Your task to perform on an android device: search for starred emails in the gmail app Image 0: 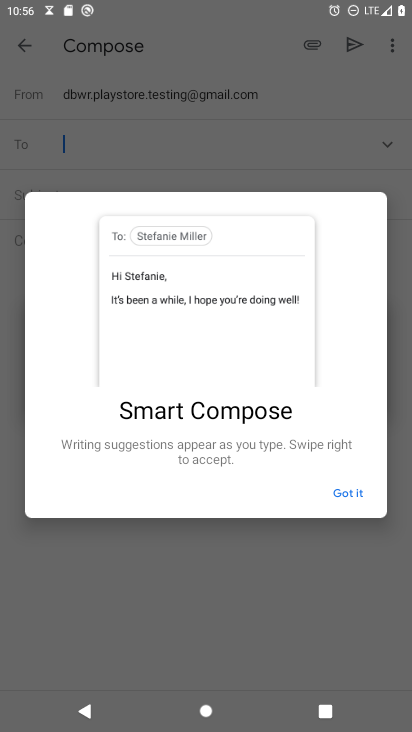
Step 0: press home button
Your task to perform on an android device: search for starred emails in the gmail app Image 1: 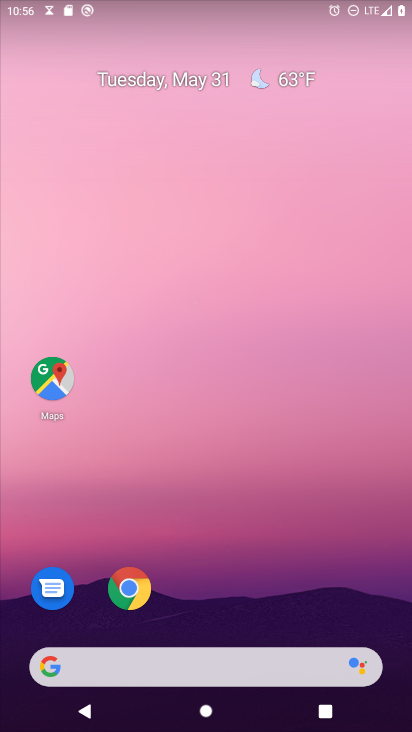
Step 1: drag from (282, 585) to (191, 176)
Your task to perform on an android device: search for starred emails in the gmail app Image 2: 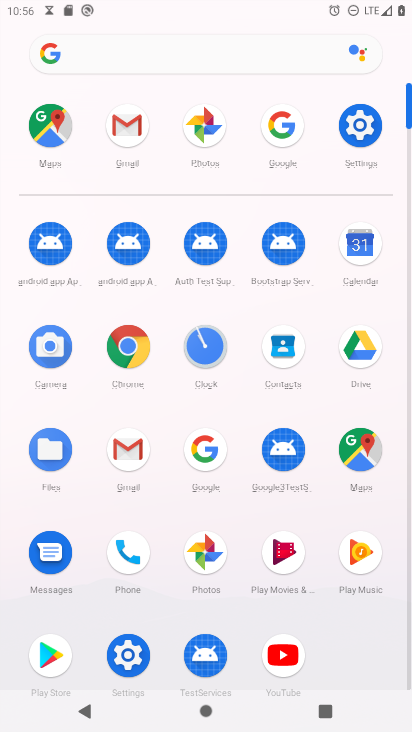
Step 2: click (125, 123)
Your task to perform on an android device: search for starred emails in the gmail app Image 3: 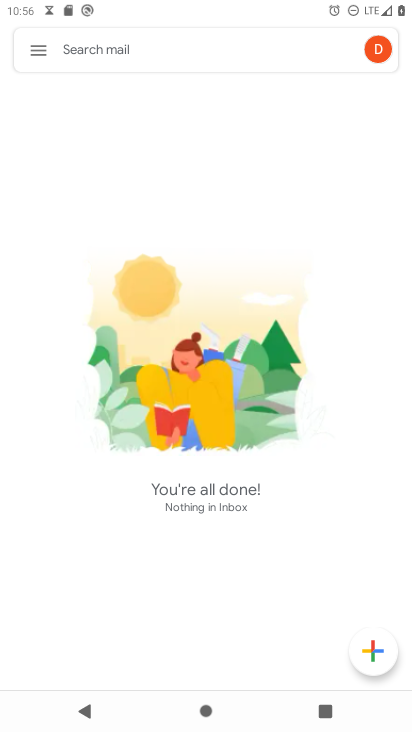
Step 3: click (33, 53)
Your task to perform on an android device: search for starred emails in the gmail app Image 4: 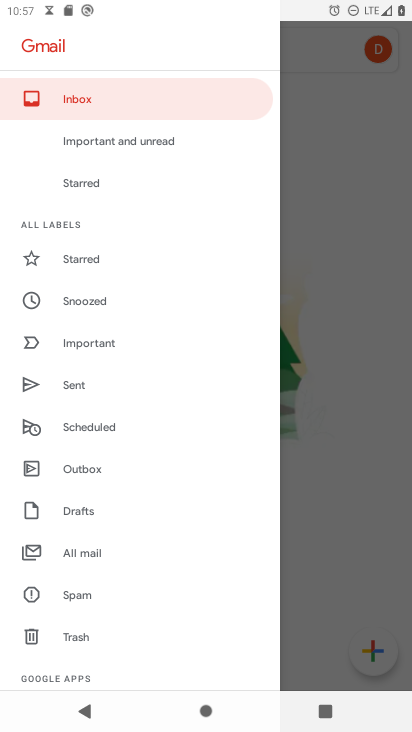
Step 4: click (75, 261)
Your task to perform on an android device: search for starred emails in the gmail app Image 5: 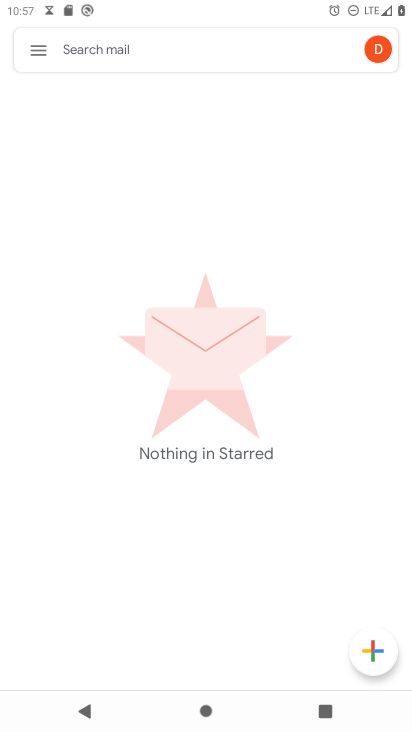
Step 5: click (38, 48)
Your task to perform on an android device: search for starred emails in the gmail app Image 6: 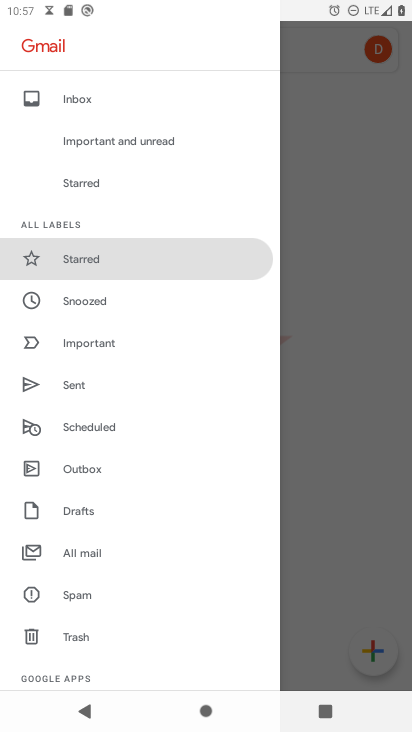
Step 6: click (89, 546)
Your task to perform on an android device: search for starred emails in the gmail app Image 7: 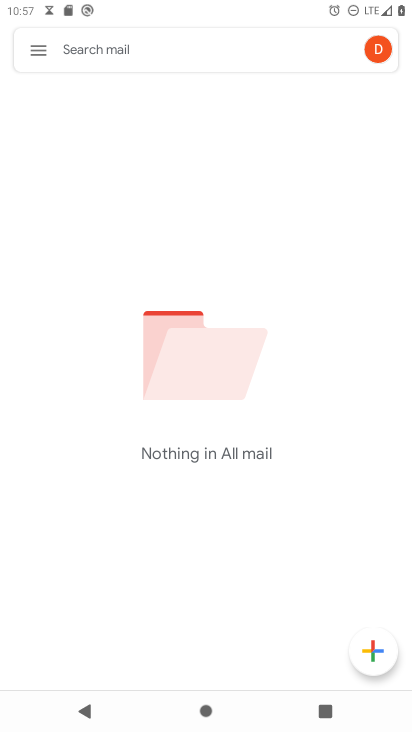
Step 7: click (38, 57)
Your task to perform on an android device: search for starred emails in the gmail app Image 8: 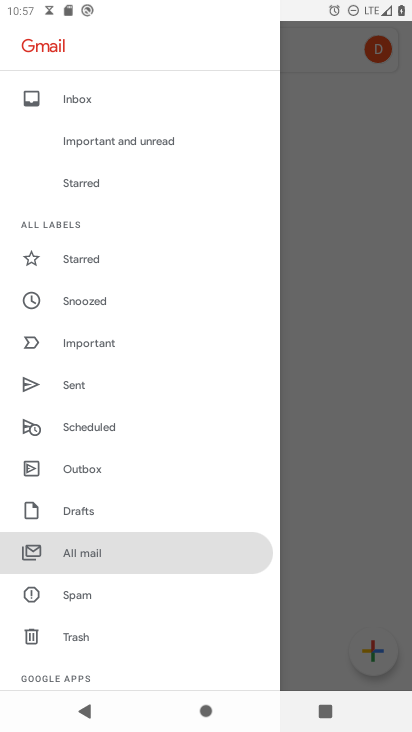
Step 8: click (97, 302)
Your task to perform on an android device: search for starred emails in the gmail app Image 9: 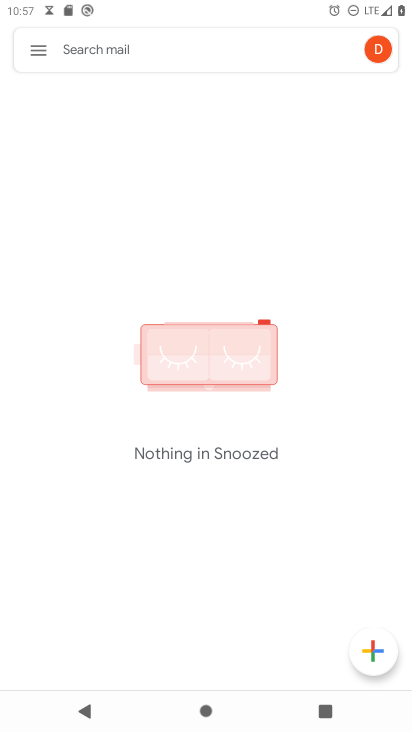
Step 9: task complete